Your task to perform on an android device: Go to network settings Image 0: 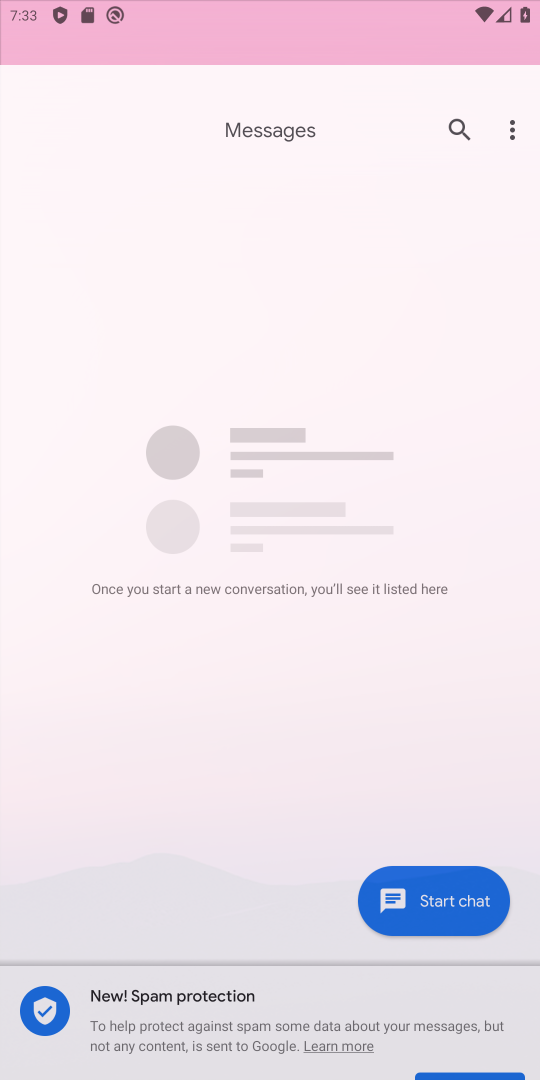
Step 0: press home button
Your task to perform on an android device: Go to network settings Image 1: 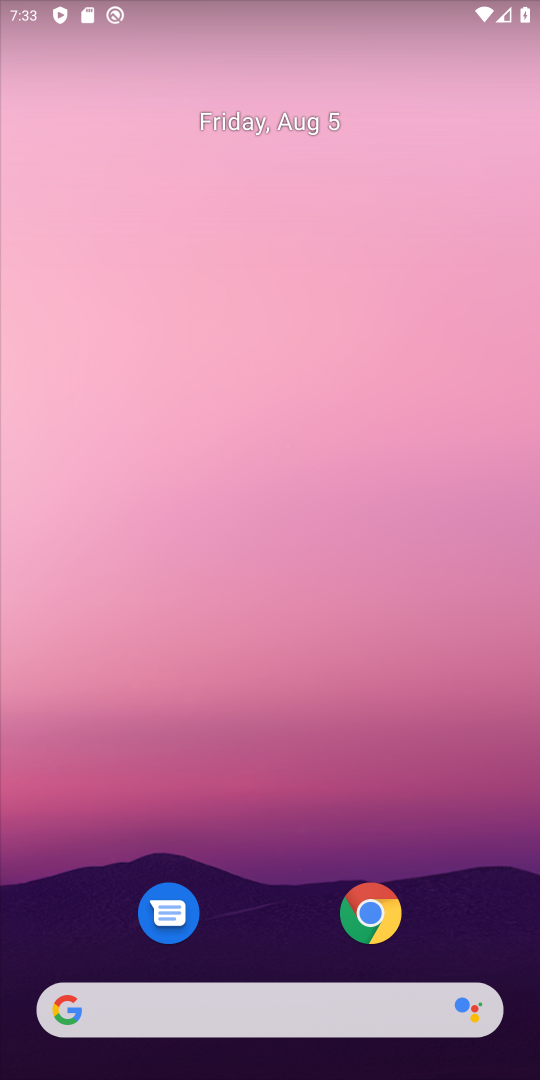
Step 1: drag from (438, 931) to (434, 269)
Your task to perform on an android device: Go to network settings Image 2: 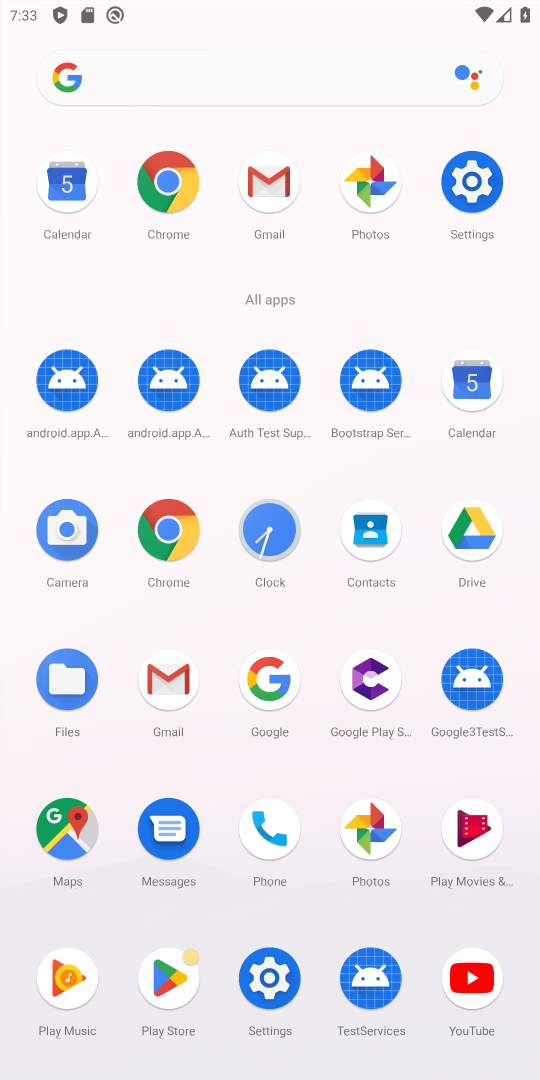
Step 2: click (461, 183)
Your task to perform on an android device: Go to network settings Image 3: 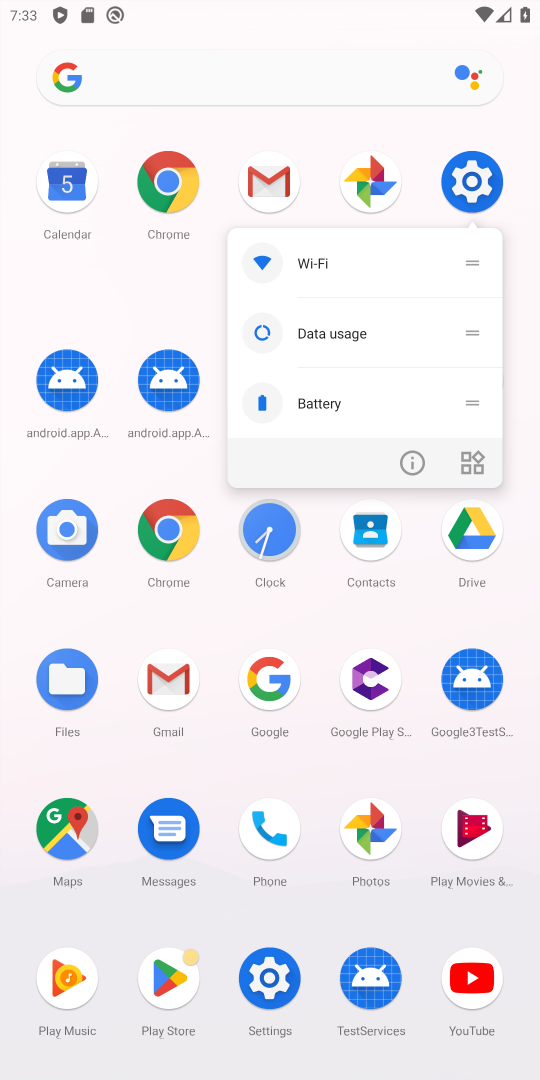
Step 3: click (491, 173)
Your task to perform on an android device: Go to network settings Image 4: 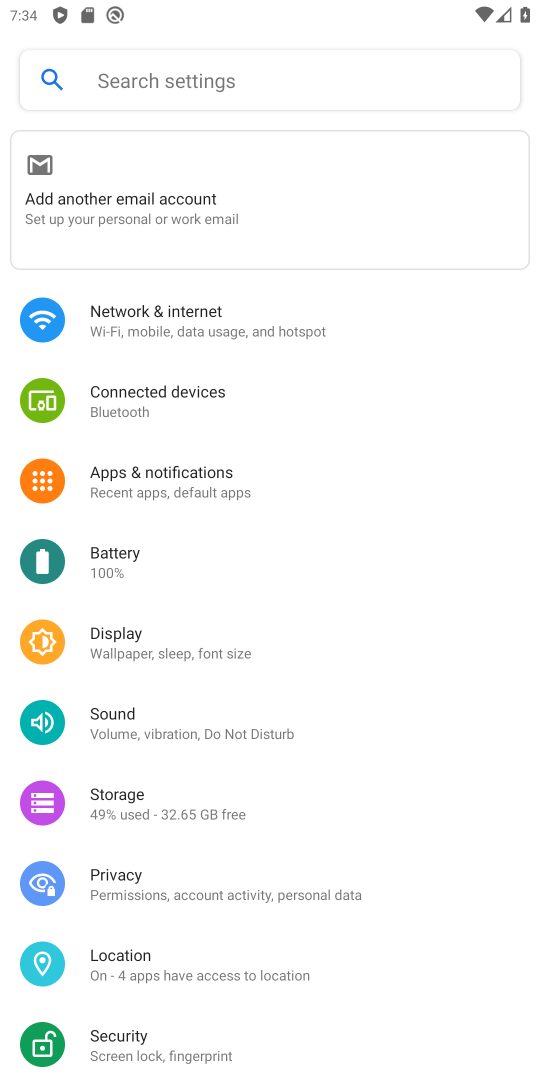
Step 4: drag from (444, 936) to (490, 600)
Your task to perform on an android device: Go to network settings Image 5: 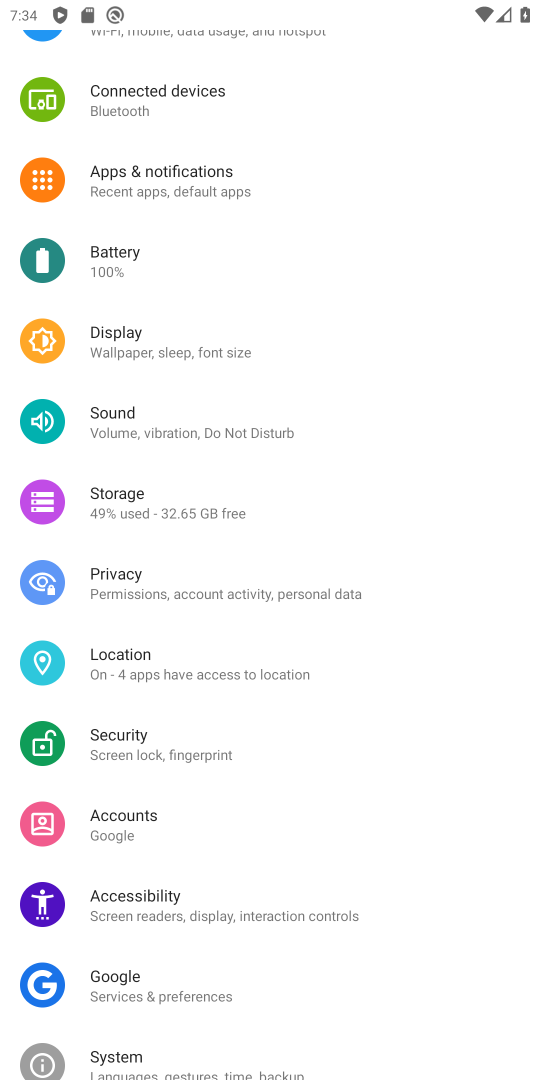
Step 5: drag from (458, 836) to (466, 601)
Your task to perform on an android device: Go to network settings Image 6: 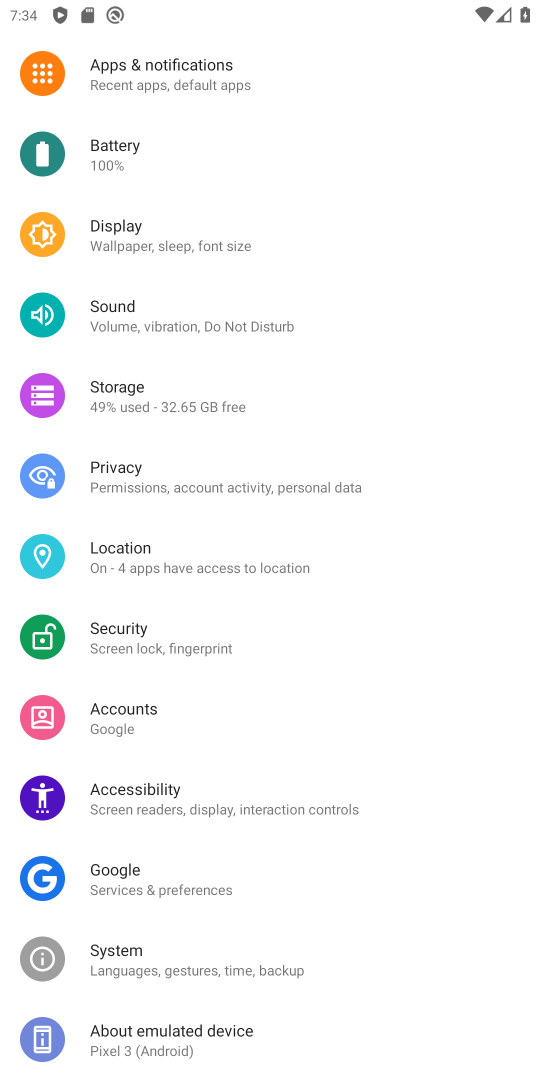
Step 6: drag from (452, 826) to (474, 588)
Your task to perform on an android device: Go to network settings Image 7: 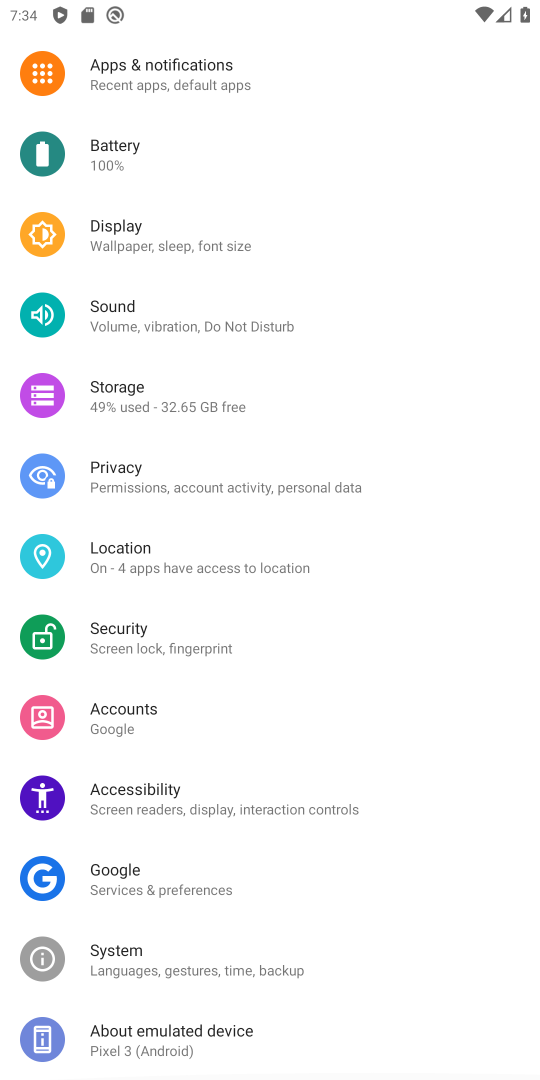
Step 7: drag from (458, 475) to (463, 787)
Your task to perform on an android device: Go to network settings Image 8: 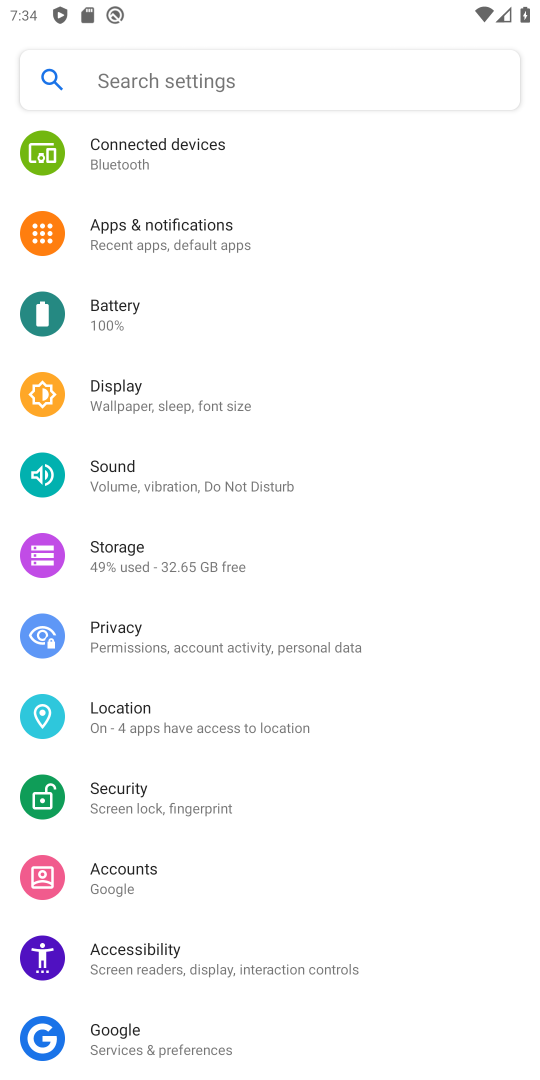
Step 8: drag from (435, 436) to (444, 752)
Your task to perform on an android device: Go to network settings Image 9: 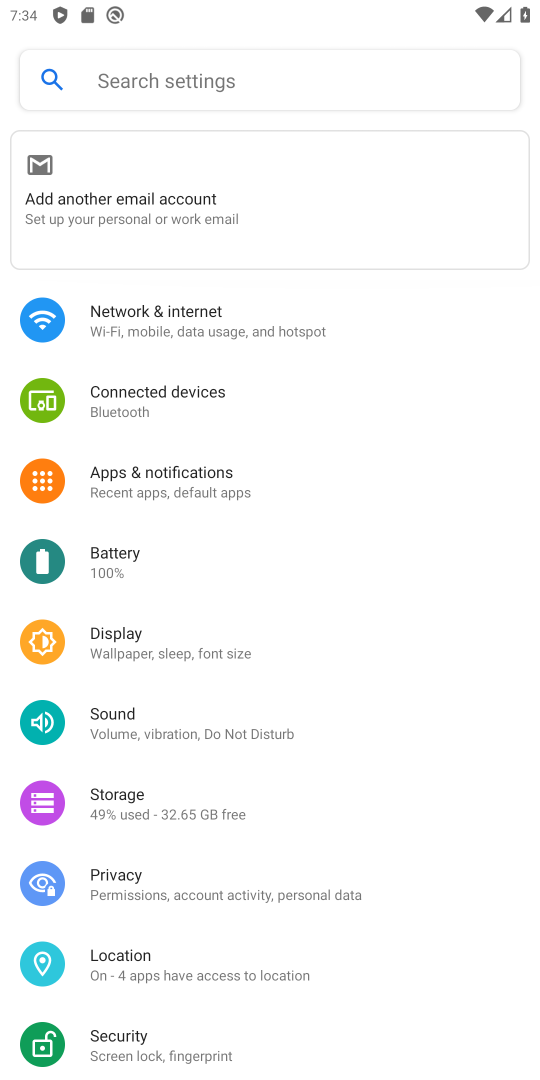
Step 9: drag from (439, 427) to (423, 674)
Your task to perform on an android device: Go to network settings Image 10: 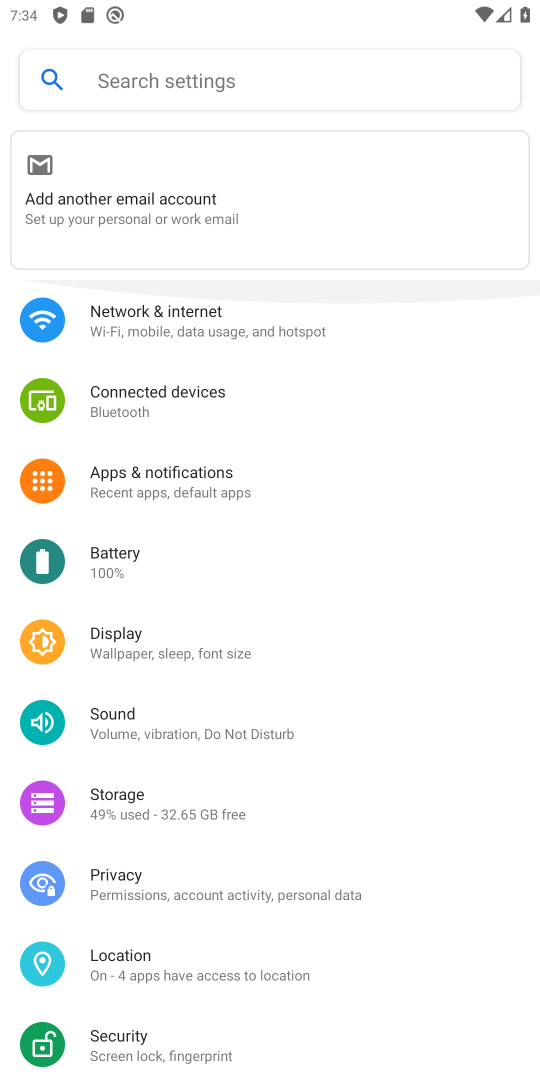
Step 10: click (359, 313)
Your task to perform on an android device: Go to network settings Image 11: 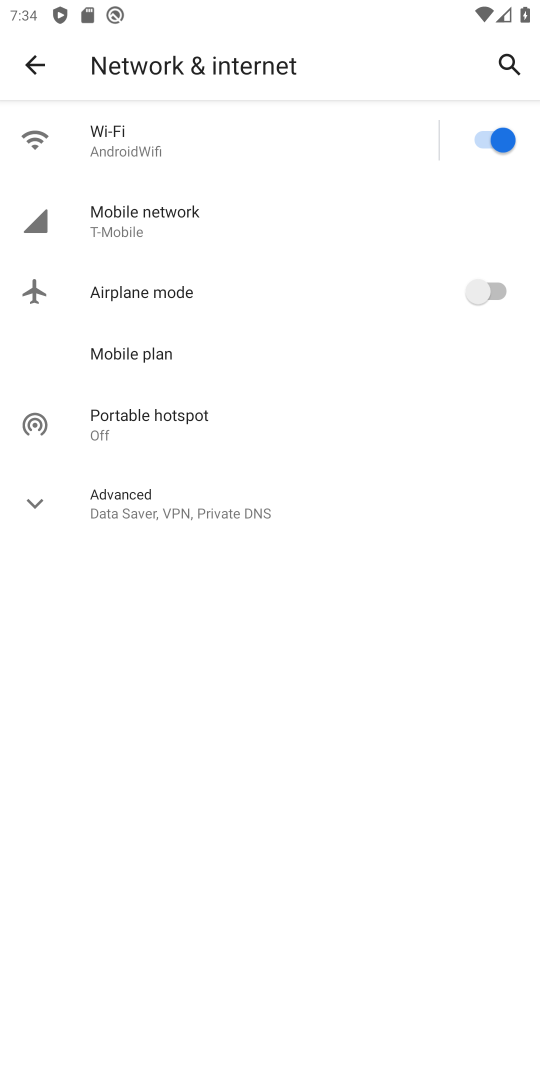
Step 11: task complete